Your task to perform on an android device: clear history in the chrome app Image 0: 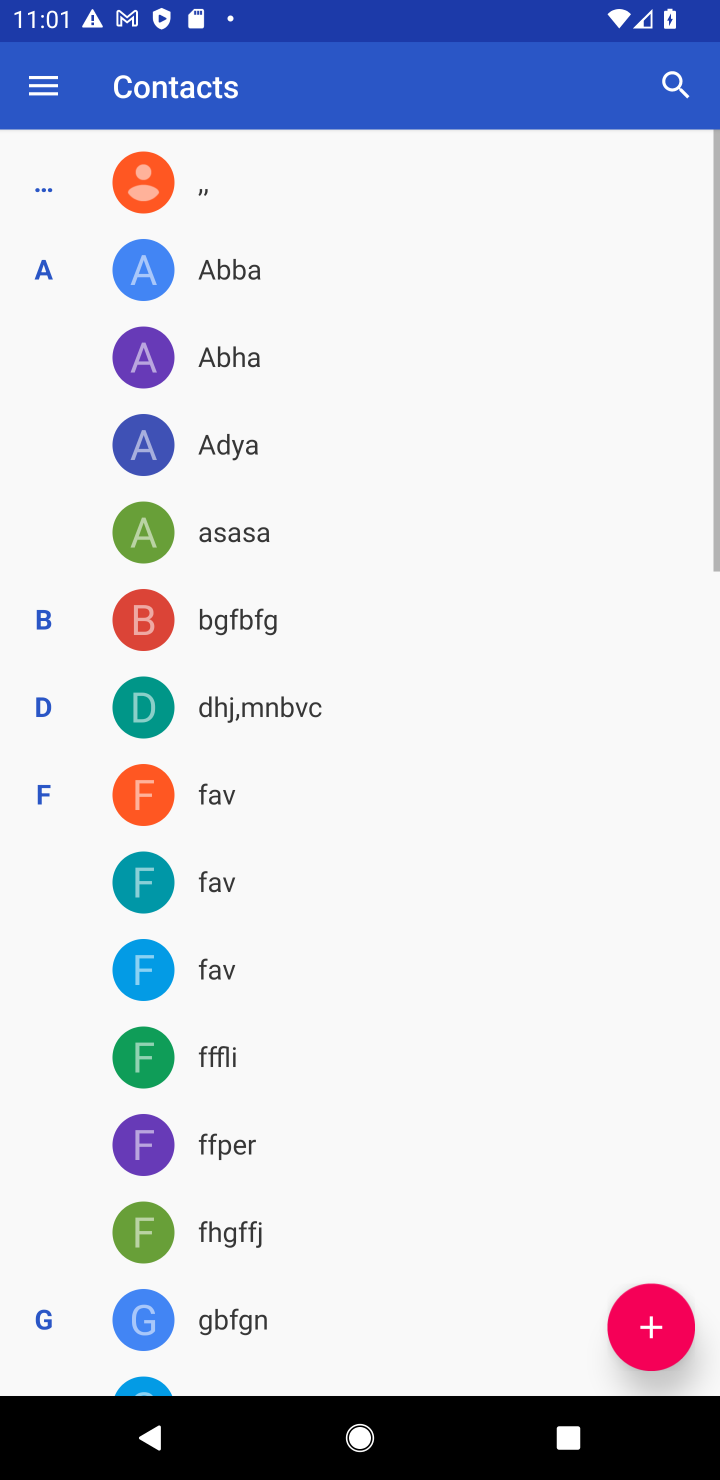
Step 0: press home button
Your task to perform on an android device: clear history in the chrome app Image 1: 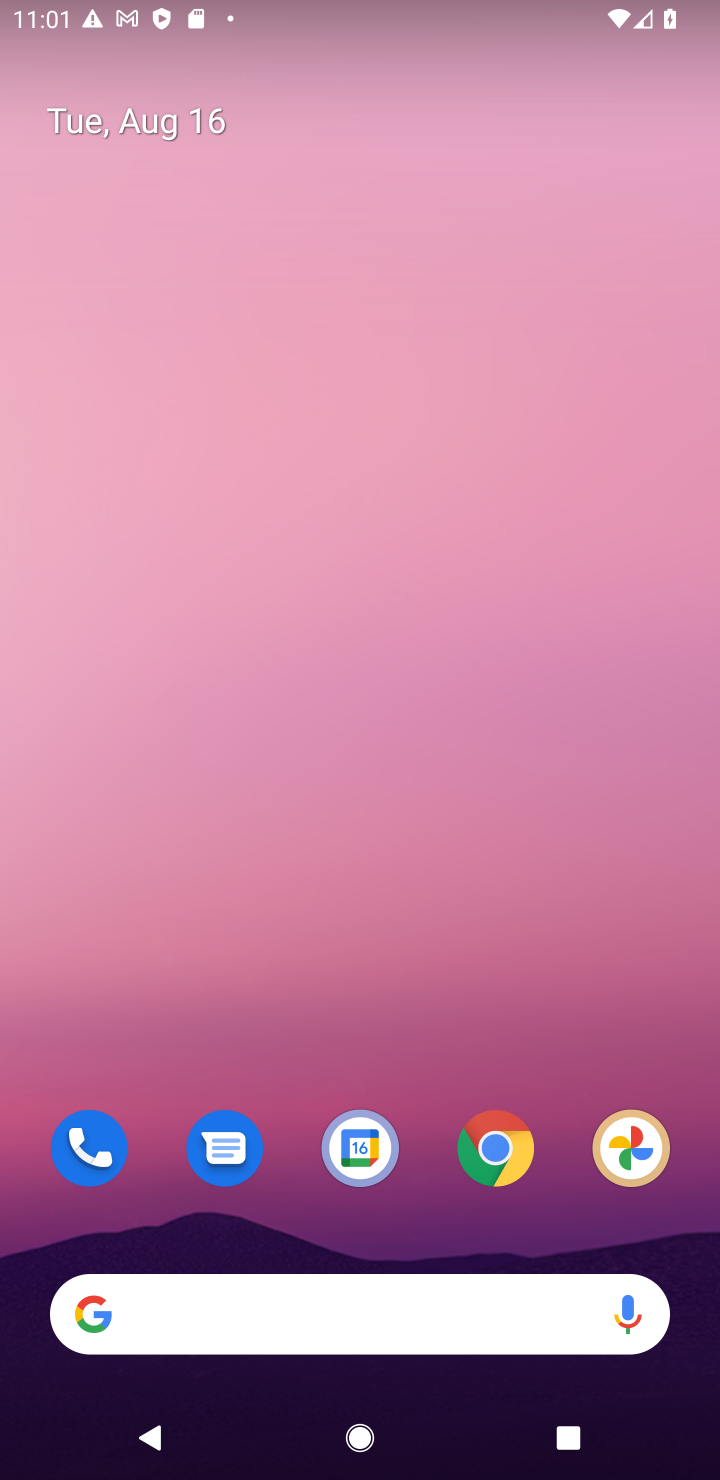
Step 1: press home button
Your task to perform on an android device: clear history in the chrome app Image 2: 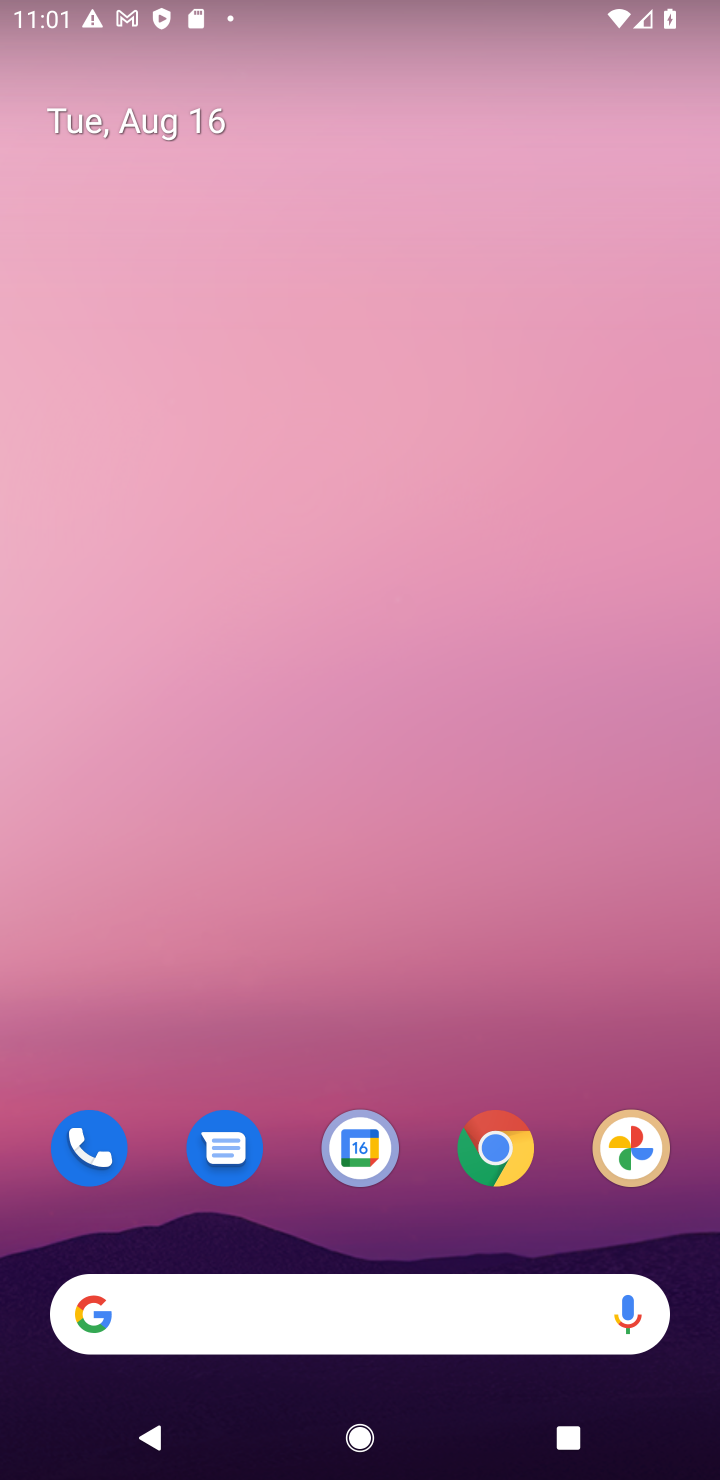
Step 2: press home button
Your task to perform on an android device: clear history in the chrome app Image 3: 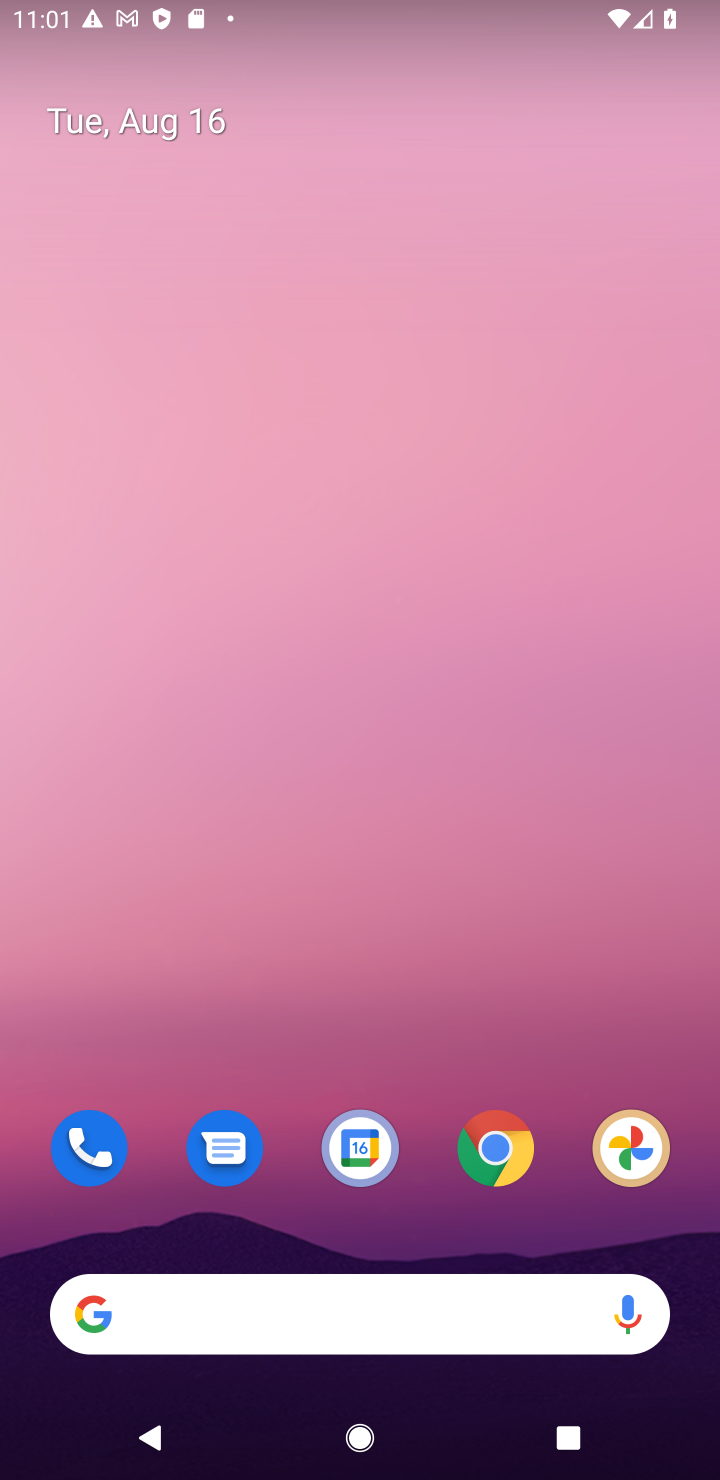
Step 3: press home button
Your task to perform on an android device: clear history in the chrome app Image 4: 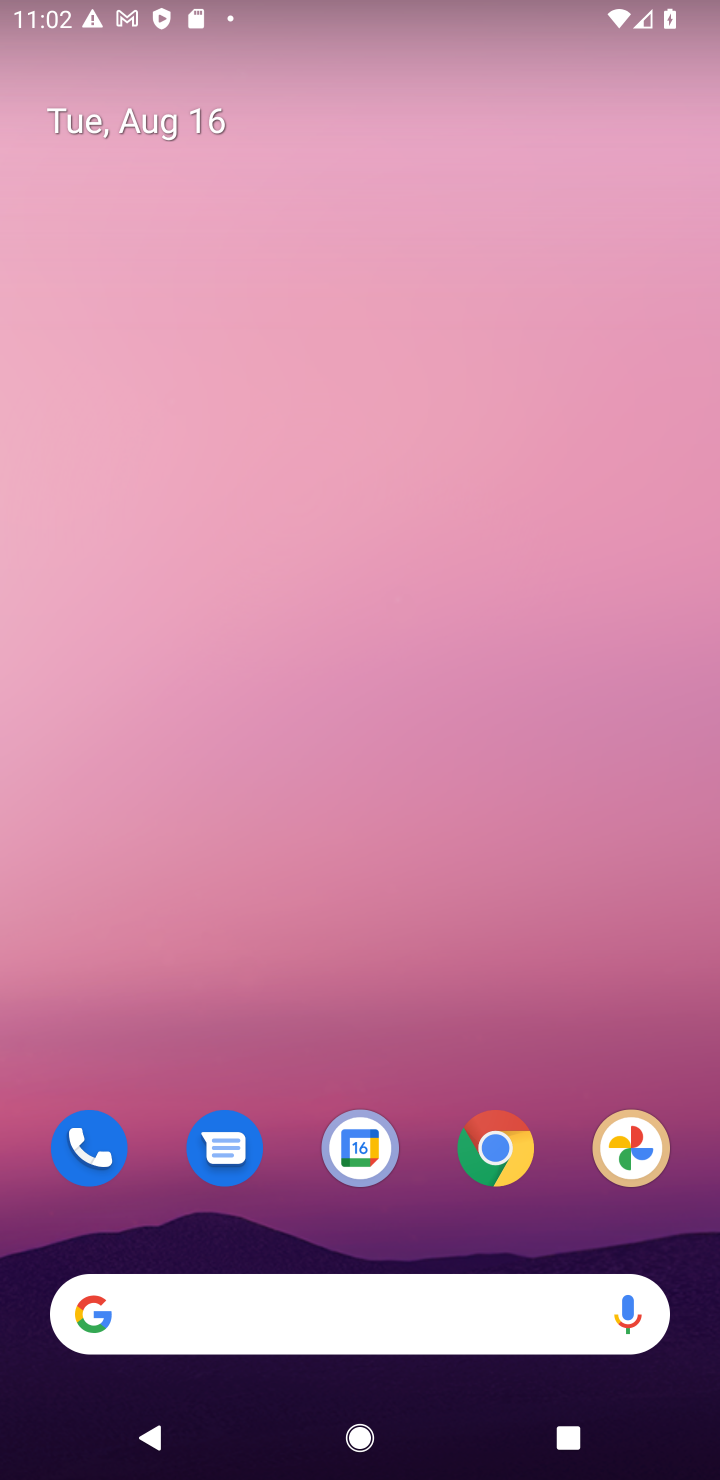
Step 4: press home button
Your task to perform on an android device: clear history in the chrome app Image 5: 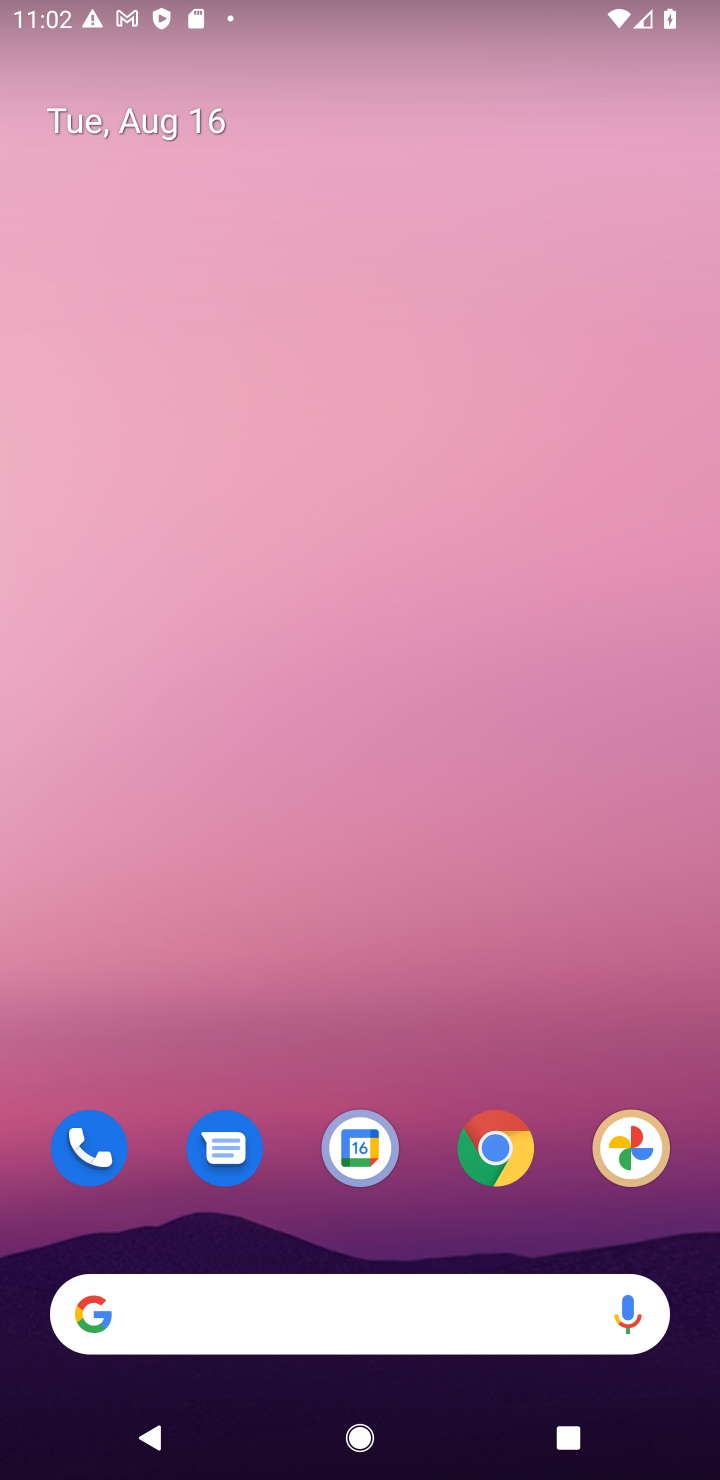
Step 5: press home button
Your task to perform on an android device: clear history in the chrome app Image 6: 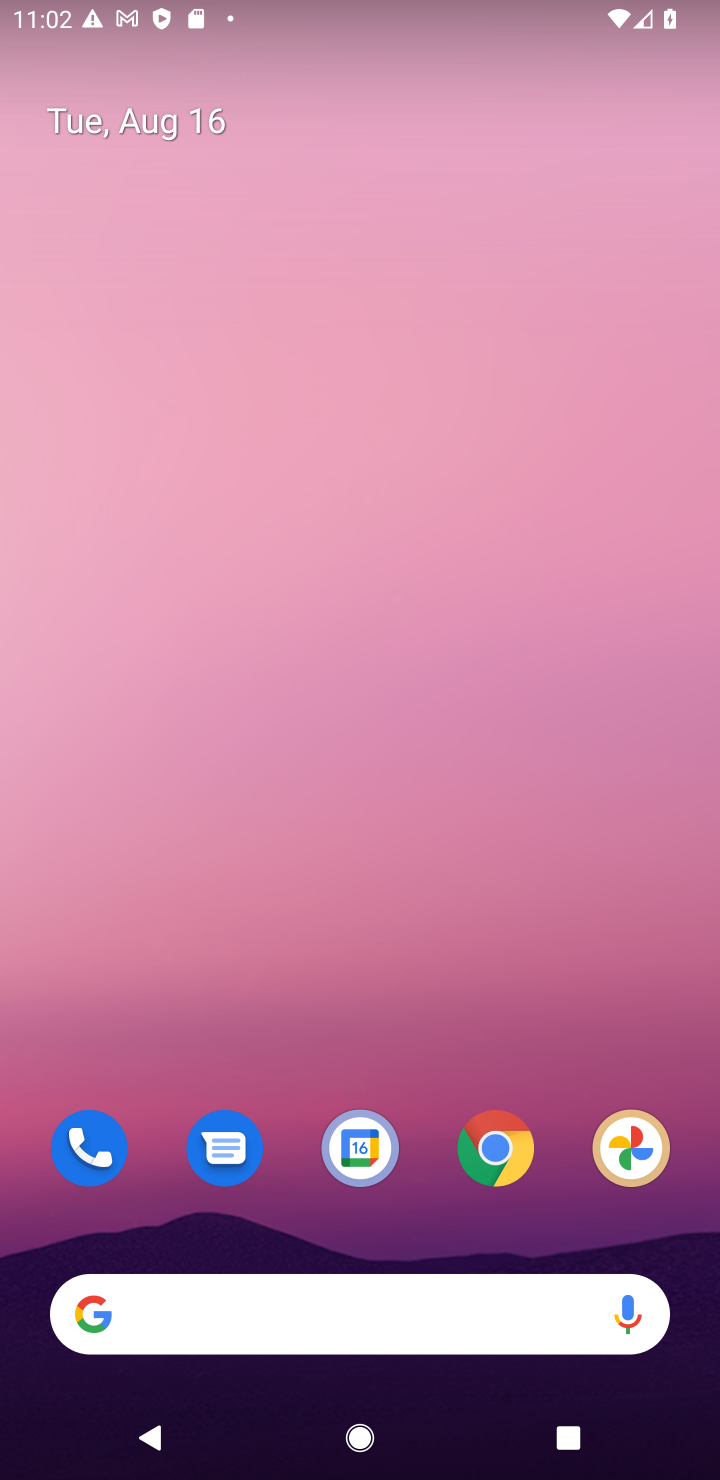
Step 6: press home button
Your task to perform on an android device: clear history in the chrome app Image 7: 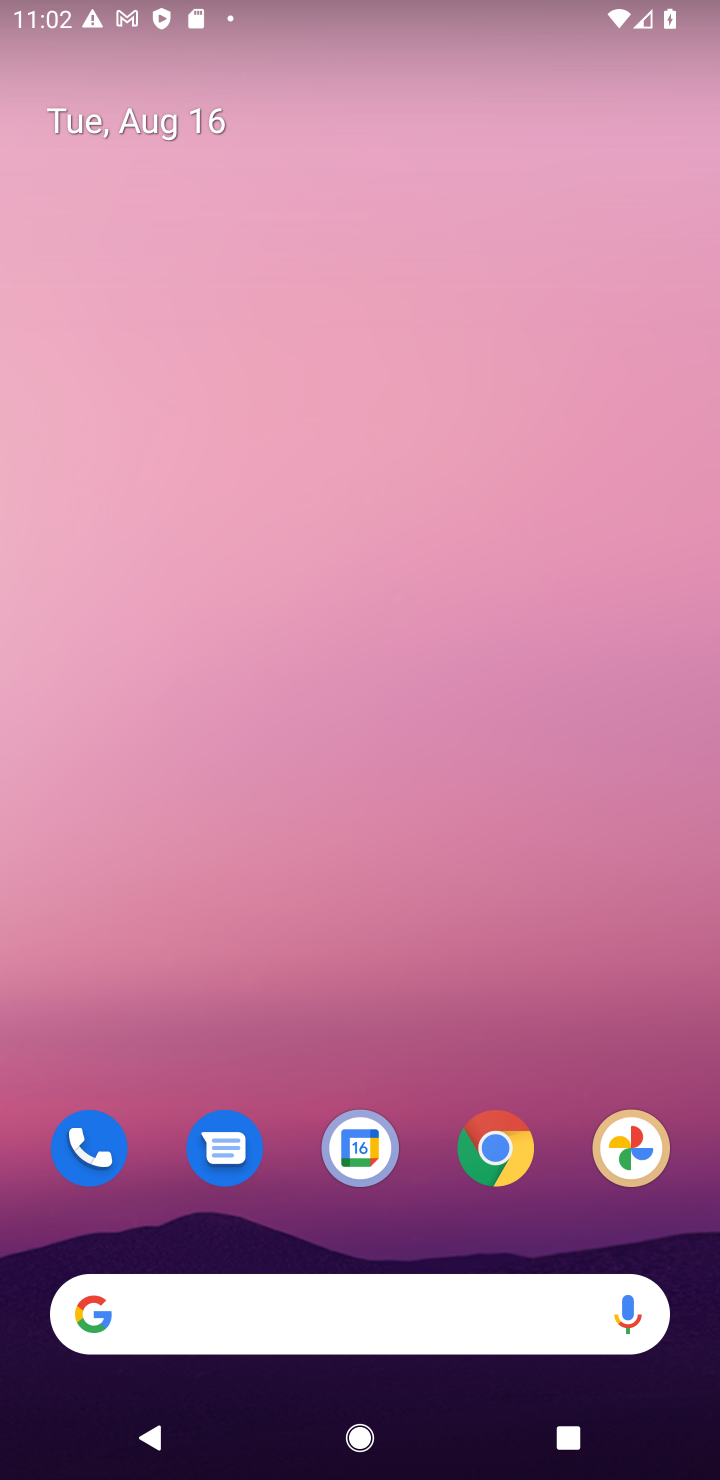
Step 7: press home button
Your task to perform on an android device: clear history in the chrome app Image 8: 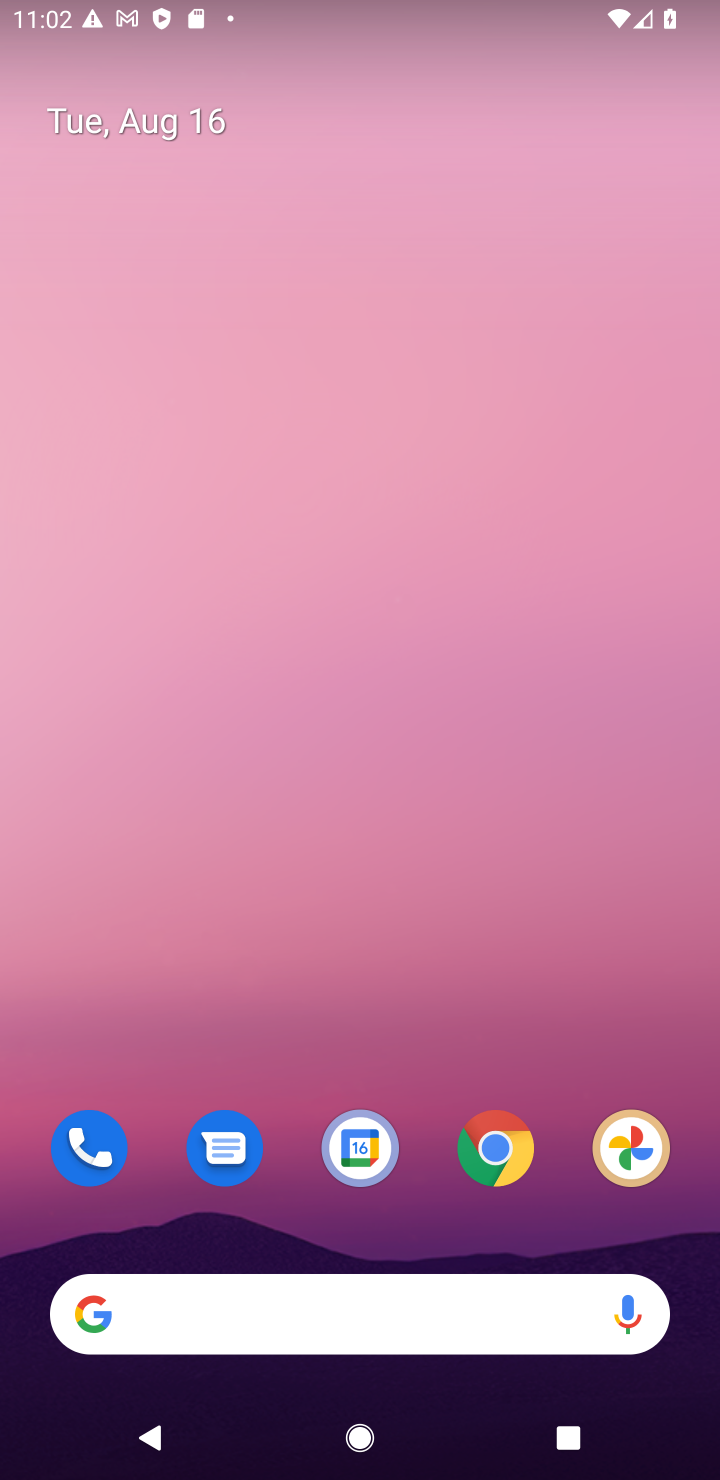
Step 8: click (481, 1151)
Your task to perform on an android device: clear history in the chrome app Image 9: 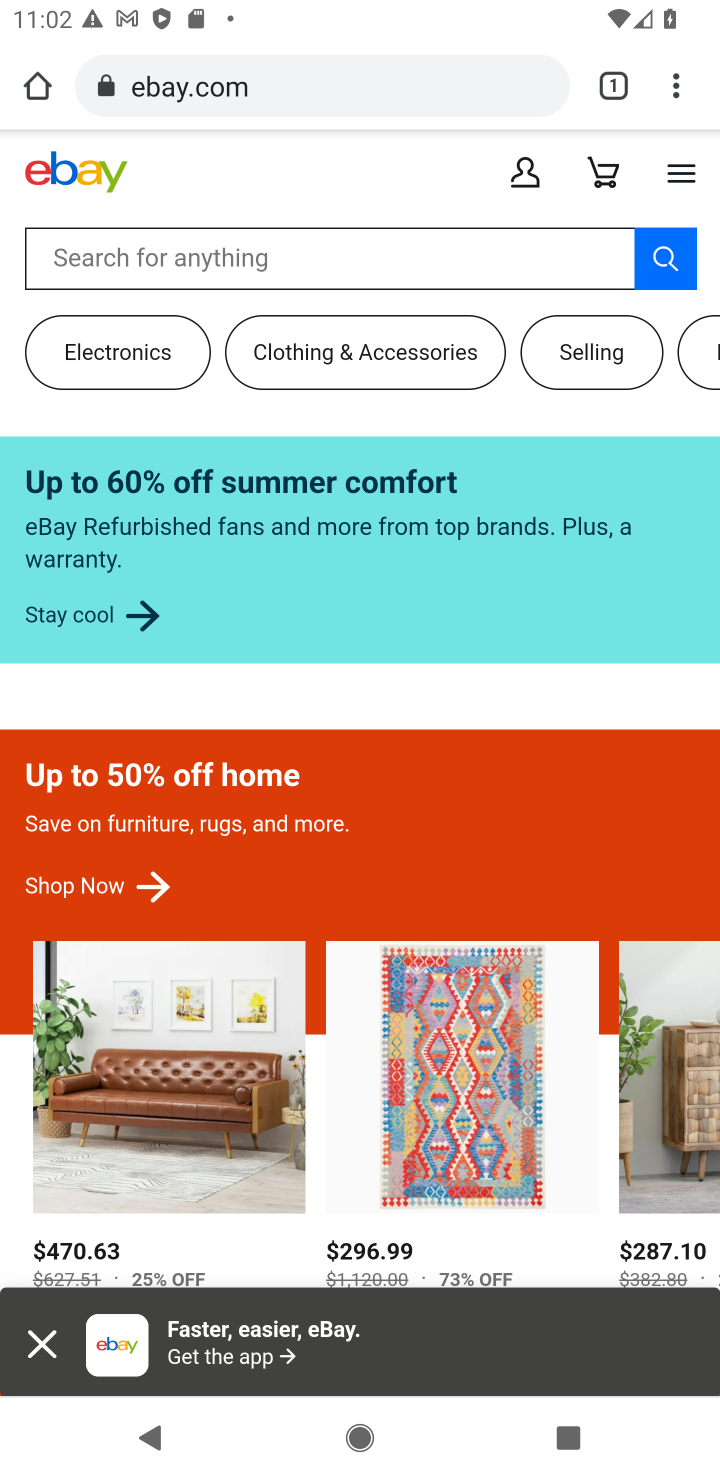
Step 9: drag from (677, 78) to (474, 1159)
Your task to perform on an android device: clear history in the chrome app Image 10: 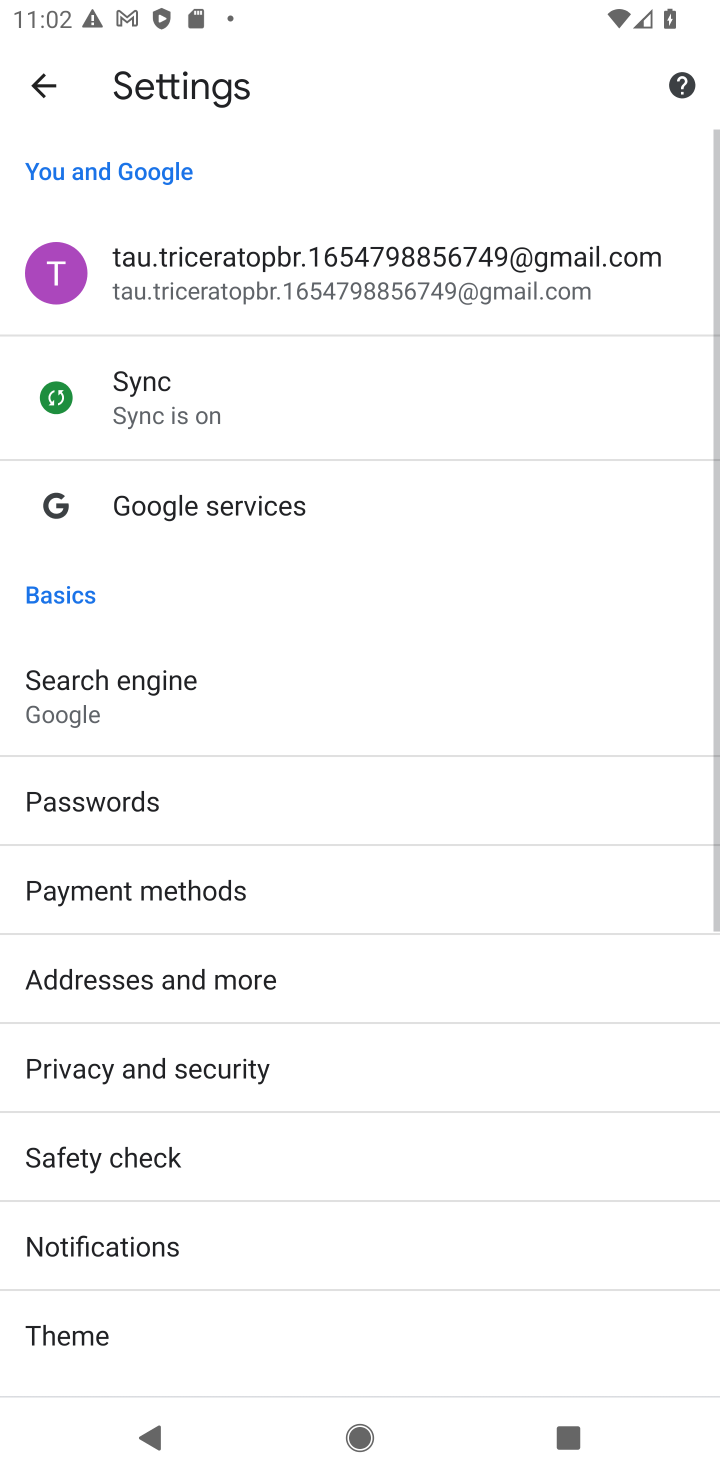
Step 10: drag from (559, 1125) to (609, 0)
Your task to perform on an android device: clear history in the chrome app Image 11: 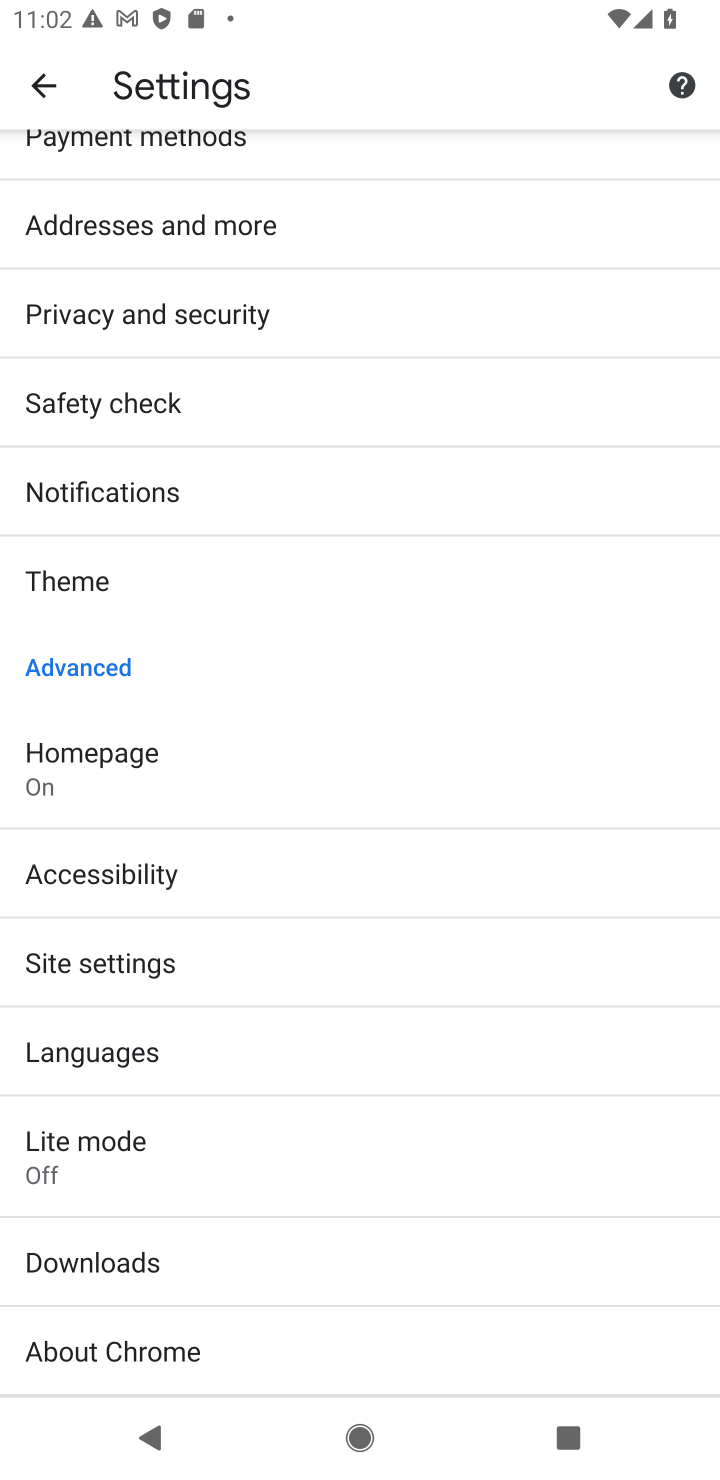
Step 11: click (93, 318)
Your task to perform on an android device: clear history in the chrome app Image 12: 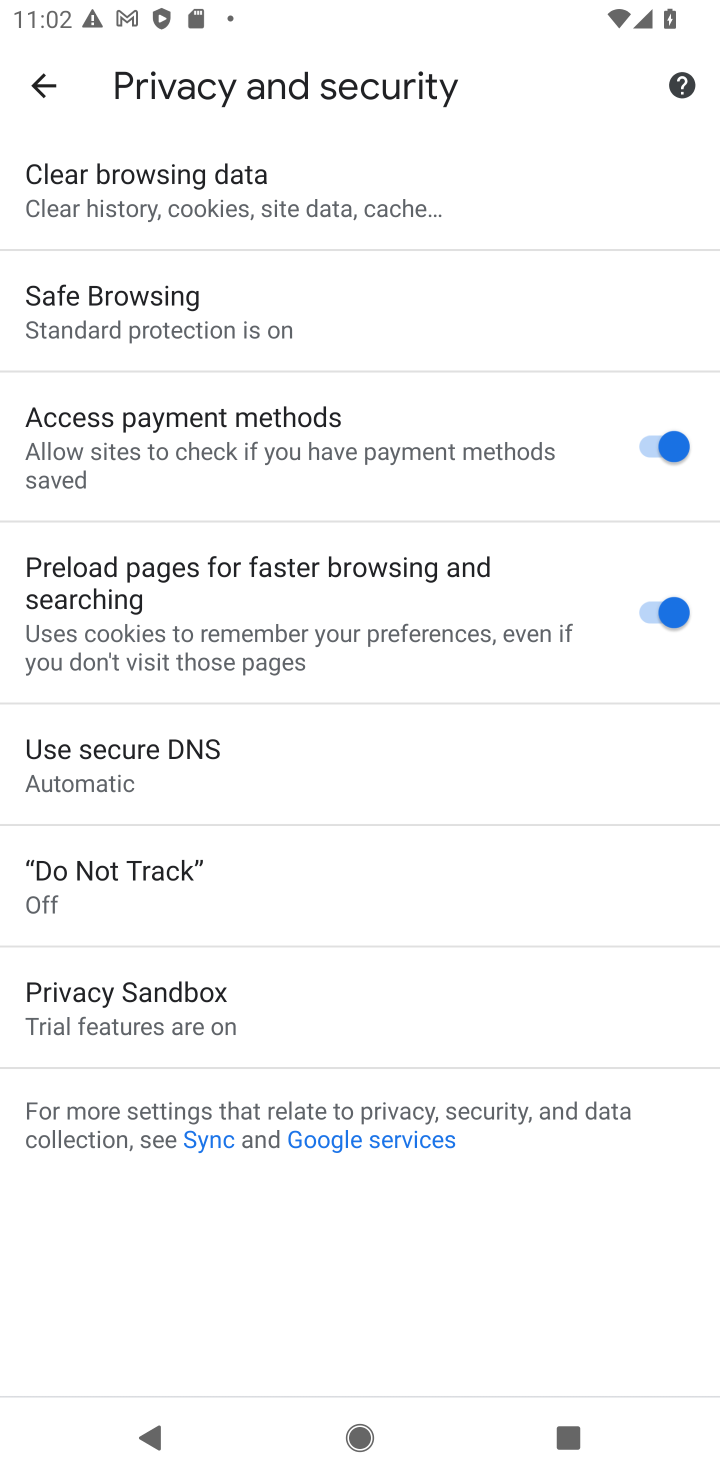
Step 12: click (208, 168)
Your task to perform on an android device: clear history in the chrome app Image 13: 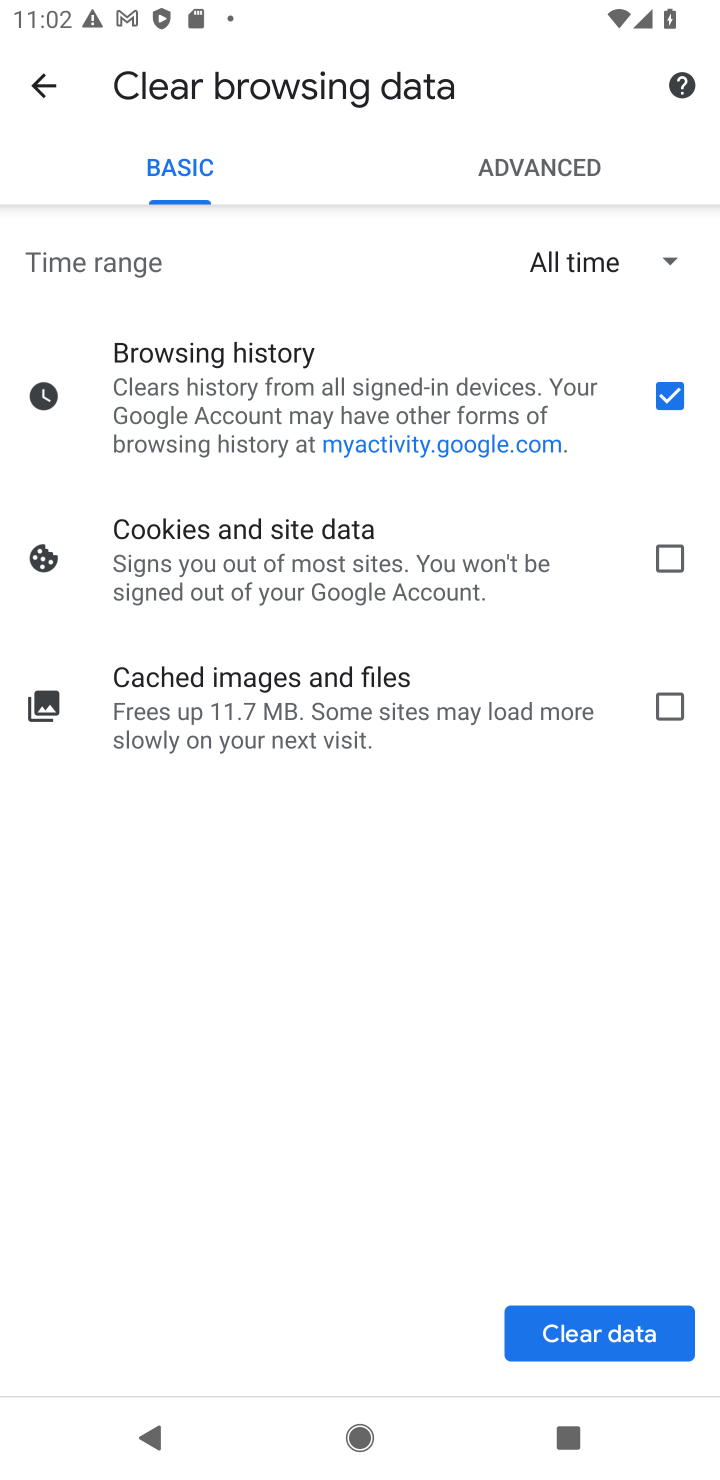
Step 13: click (572, 1327)
Your task to perform on an android device: clear history in the chrome app Image 14: 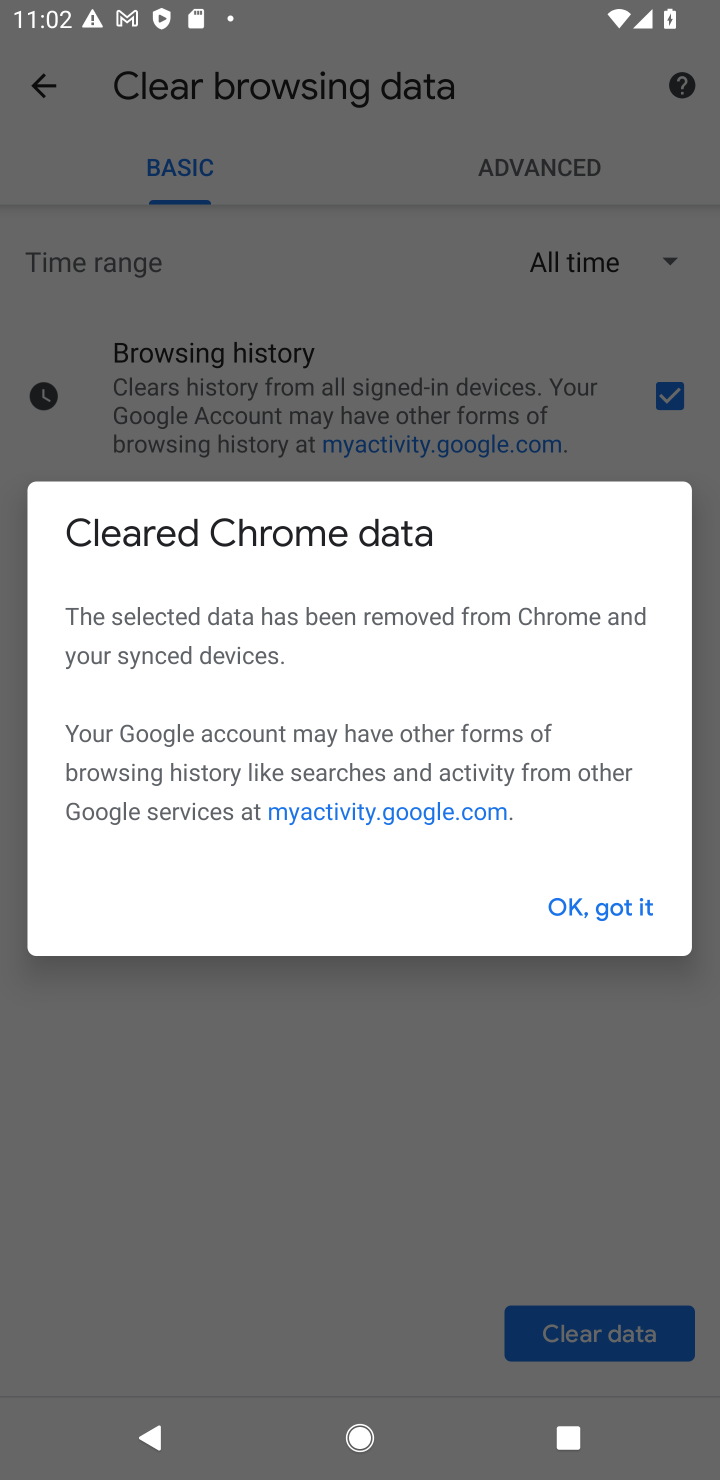
Step 14: click (609, 908)
Your task to perform on an android device: clear history in the chrome app Image 15: 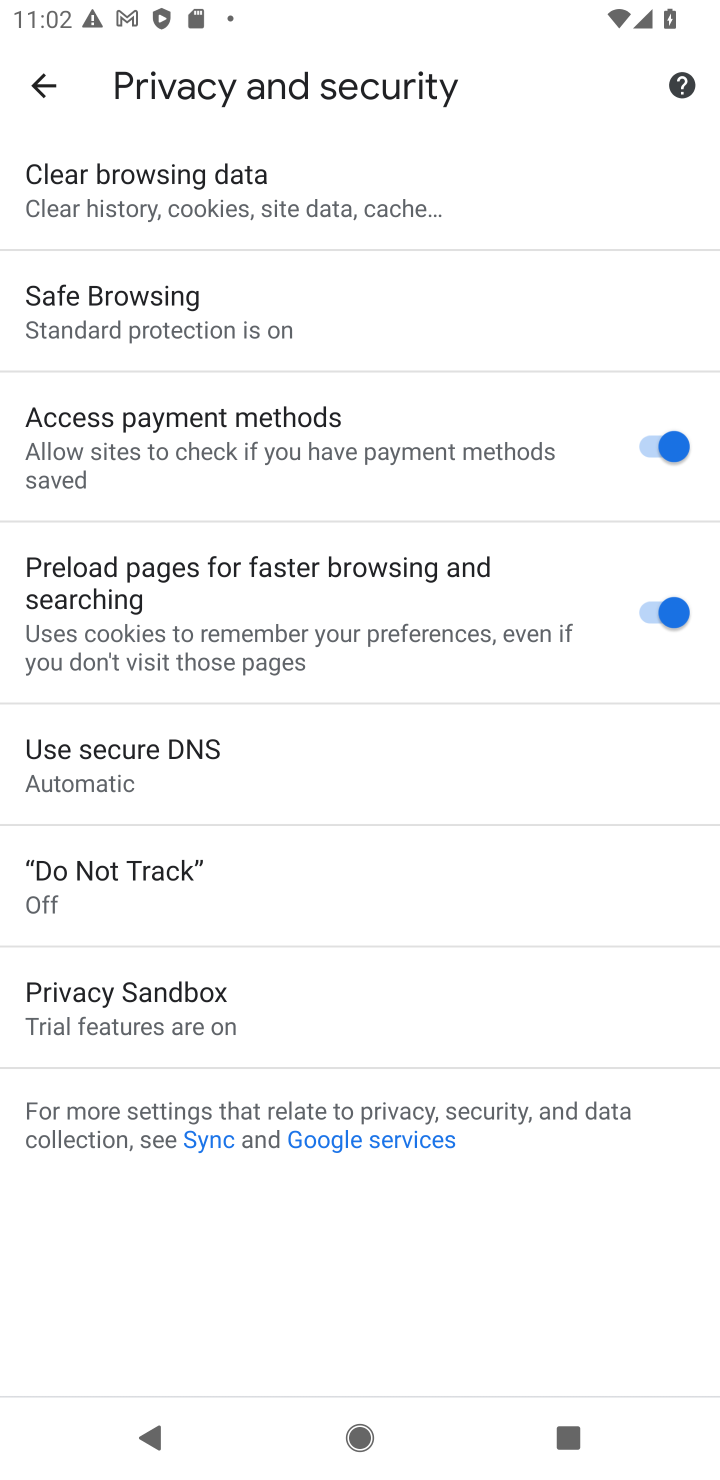
Step 15: task complete